Your task to perform on an android device: stop showing notifications on the lock screen Image 0: 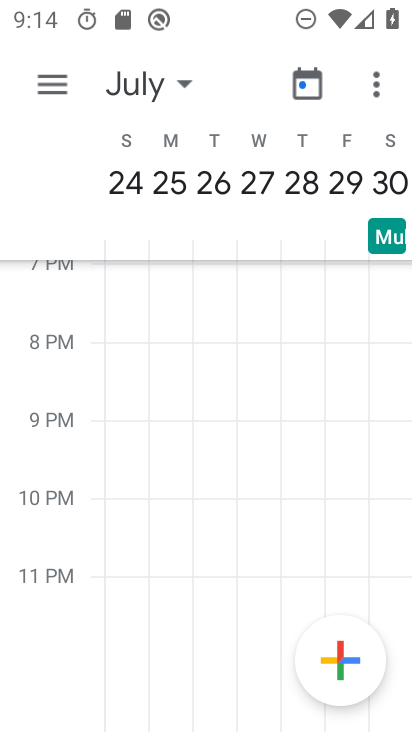
Step 0: press home button
Your task to perform on an android device: stop showing notifications on the lock screen Image 1: 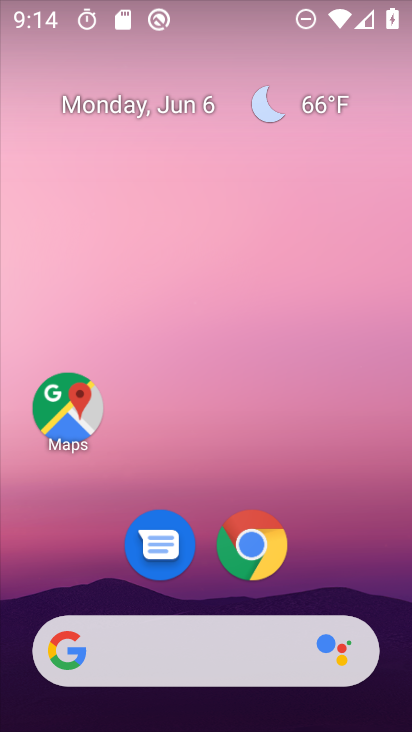
Step 1: drag from (206, 486) to (293, 41)
Your task to perform on an android device: stop showing notifications on the lock screen Image 2: 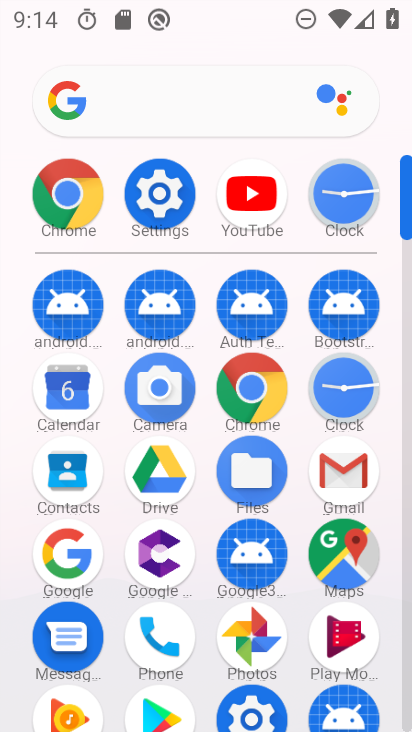
Step 2: click (160, 204)
Your task to perform on an android device: stop showing notifications on the lock screen Image 3: 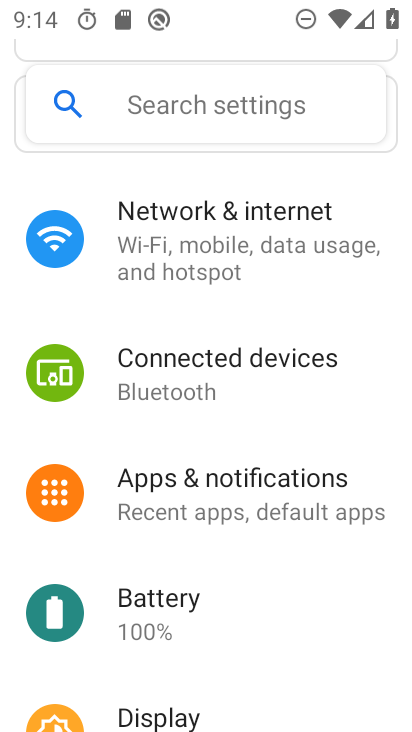
Step 3: click (308, 490)
Your task to perform on an android device: stop showing notifications on the lock screen Image 4: 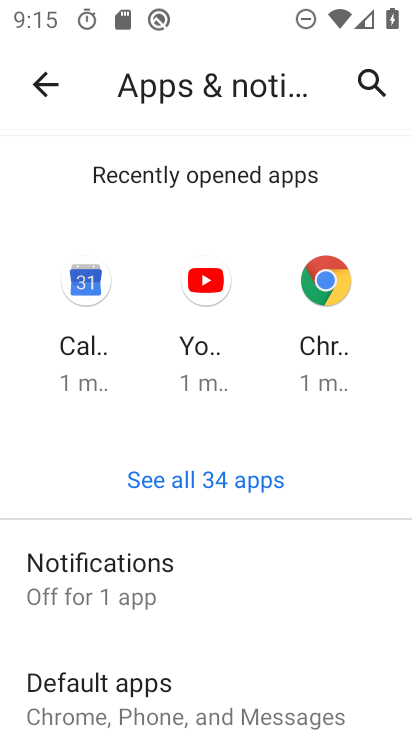
Step 4: click (146, 571)
Your task to perform on an android device: stop showing notifications on the lock screen Image 5: 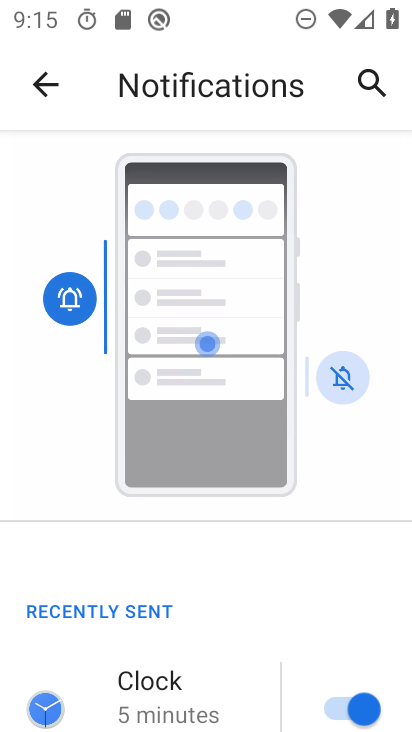
Step 5: drag from (161, 593) to (170, 389)
Your task to perform on an android device: stop showing notifications on the lock screen Image 6: 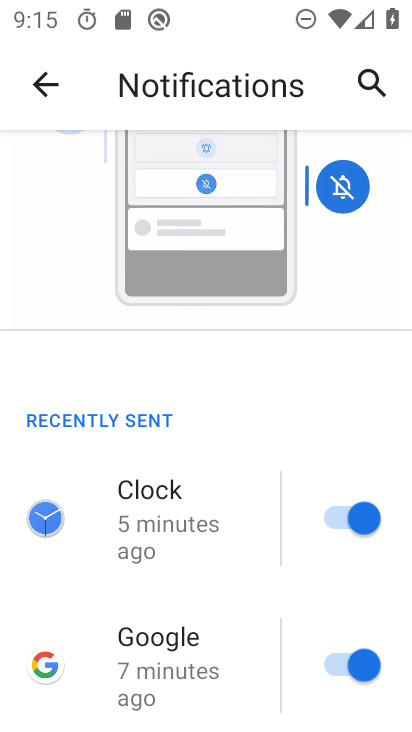
Step 6: drag from (199, 624) to (265, 193)
Your task to perform on an android device: stop showing notifications on the lock screen Image 7: 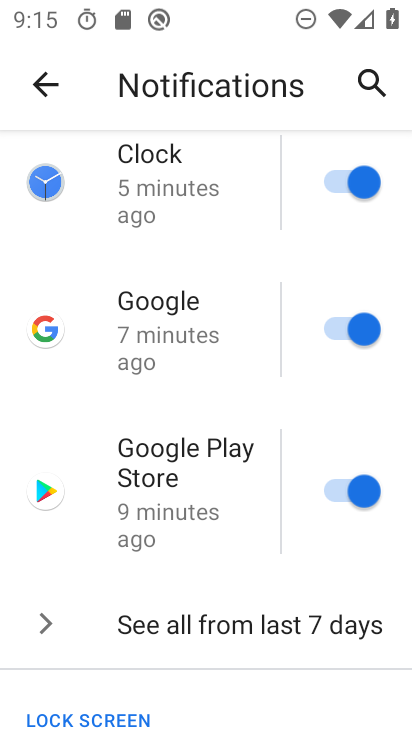
Step 7: drag from (158, 667) to (213, 277)
Your task to perform on an android device: stop showing notifications on the lock screen Image 8: 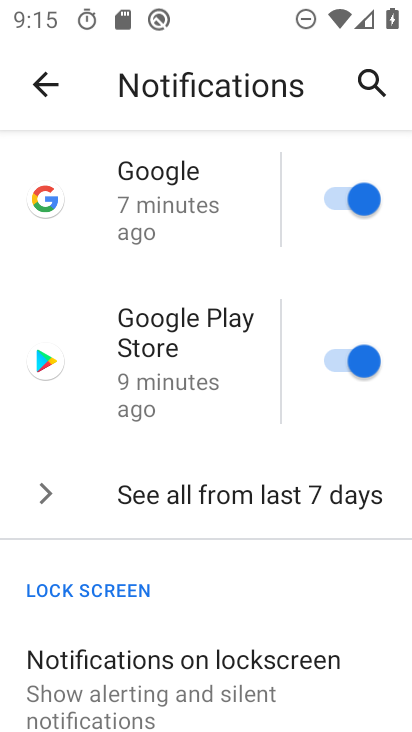
Step 8: drag from (149, 592) to (205, 335)
Your task to perform on an android device: stop showing notifications on the lock screen Image 9: 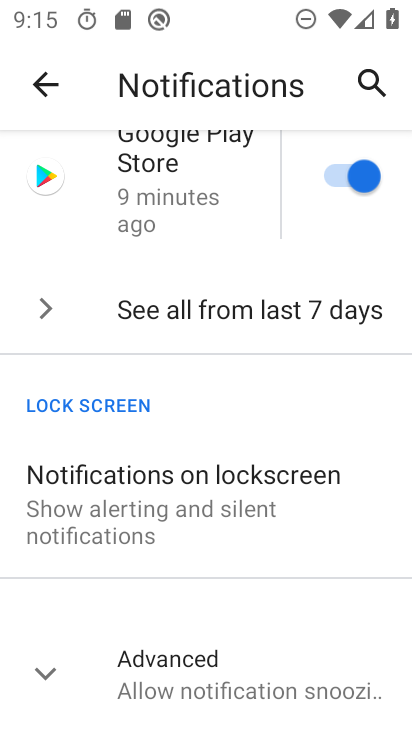
Step 9: click (132, 489)
Your task to perform on an android device: stop showing notifications on the lock screen Image 10: 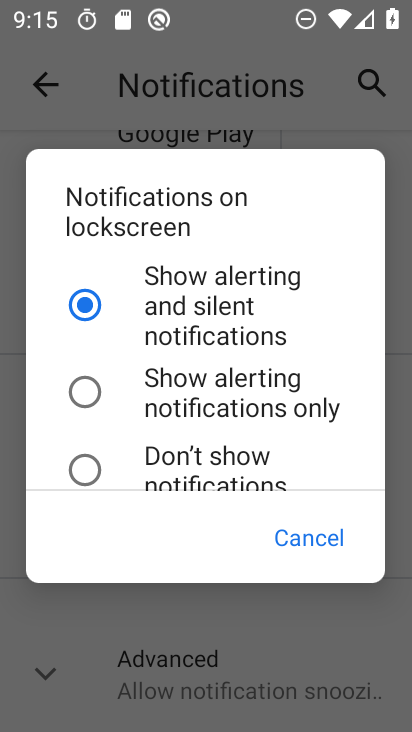
Step 10: click (111, 473)
Your task to perform on an android device: stop showing notifications on the lock screen Image 11: 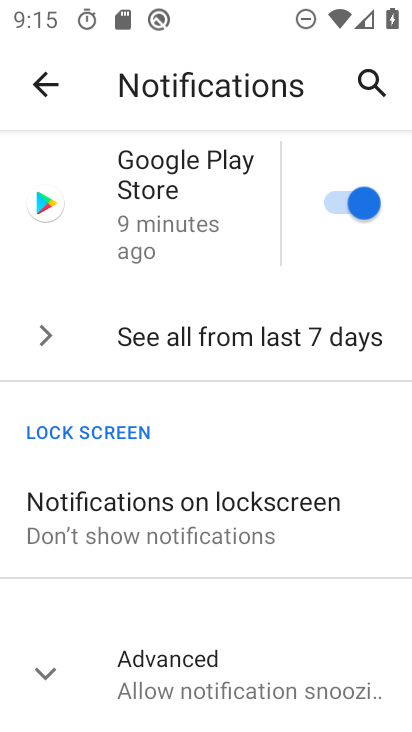
Step 11: task complete